Your task to perform on an android device: Open Maps and search for coffee Image 0: 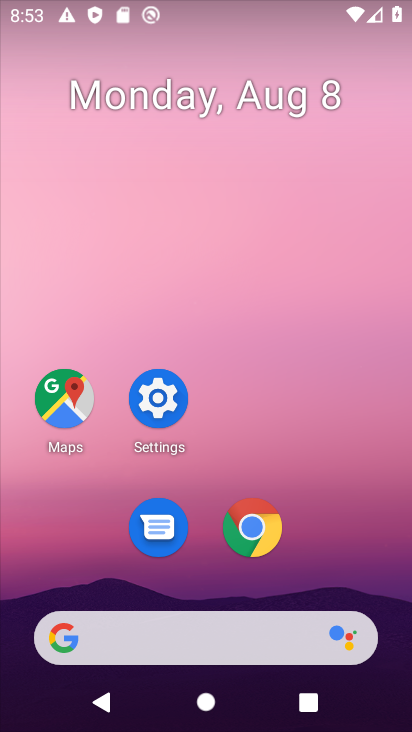
Step 0: click (73, 401)
Your task to perform on an android device: Open Maps and search for coffee Image 1: 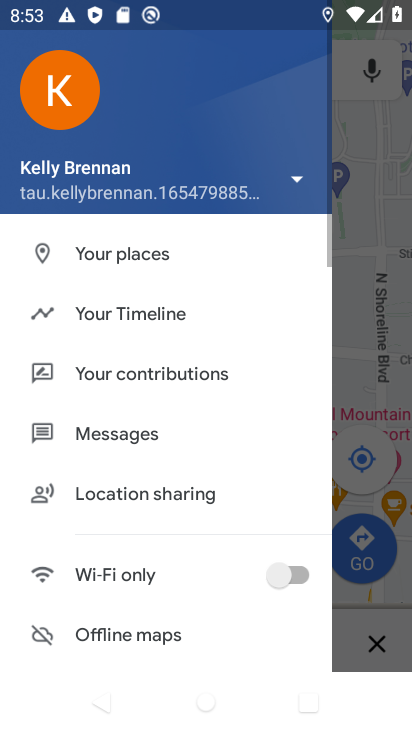
Step 1: click (355, 256)
Your task to perform on an android device: Open Maps and search for coffee Image 2: 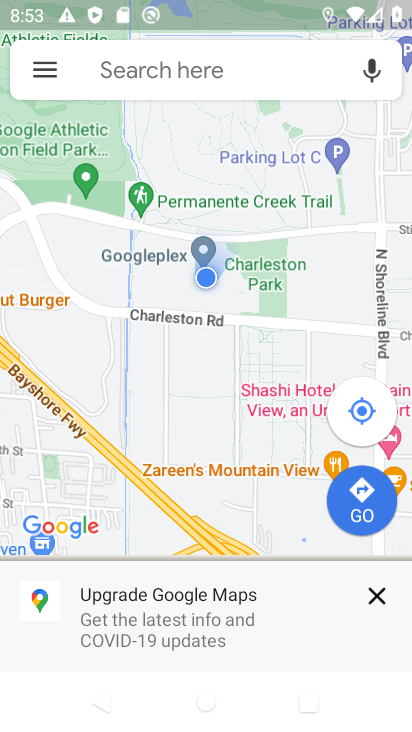
Step 2: click (143, 61)
Your task to perform on an android device: Open Maps and search for coffee Image 3: 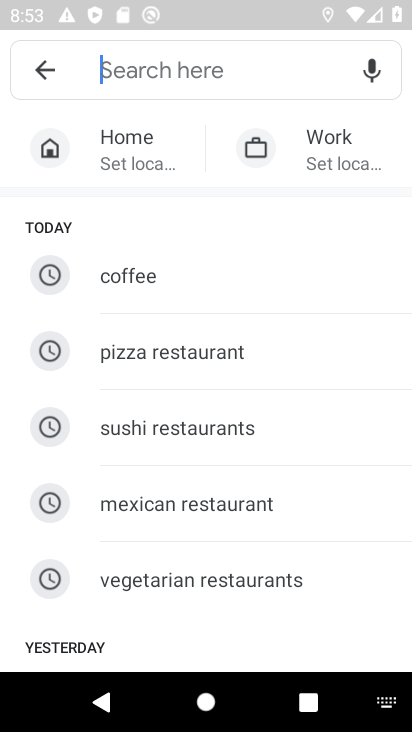
Step 3: type "coffee"
Your task to perform on an android device: Open Maps and search for coffee Image 4: 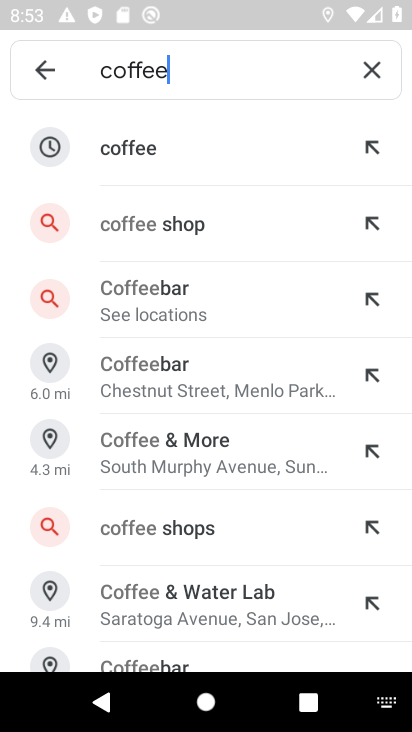
Step 4: press enter
Your task to perform on an android device: Open Maps and search for coffee Image 5: 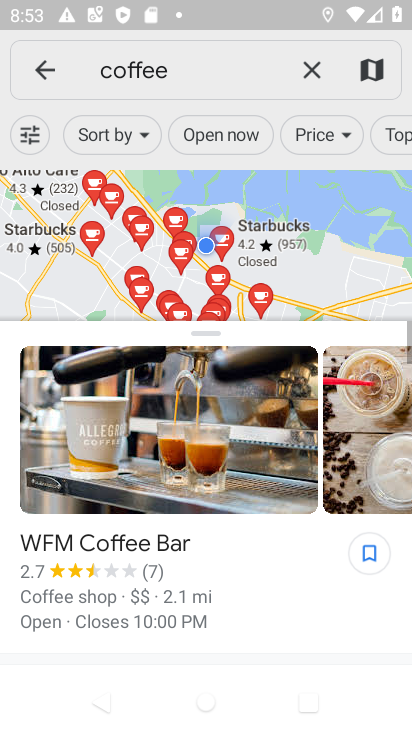
Step 5: task complete